Your task to perform on an android device: Show me productivity apps on the Play Store Image 0: 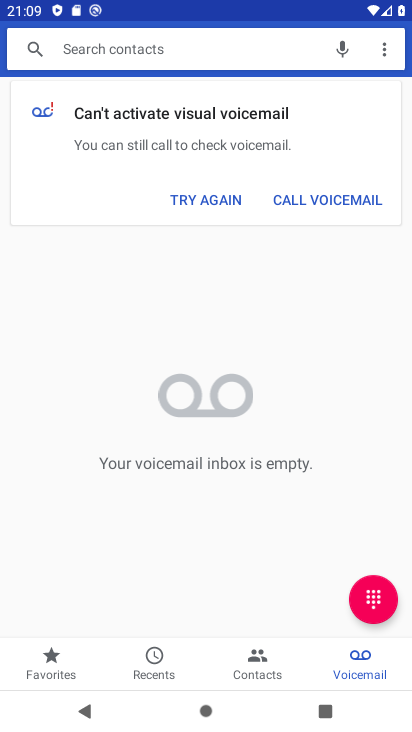
Step 0: press home button
Your task to perform on an android device: Show me productivity apps on the Play Store Image 1: 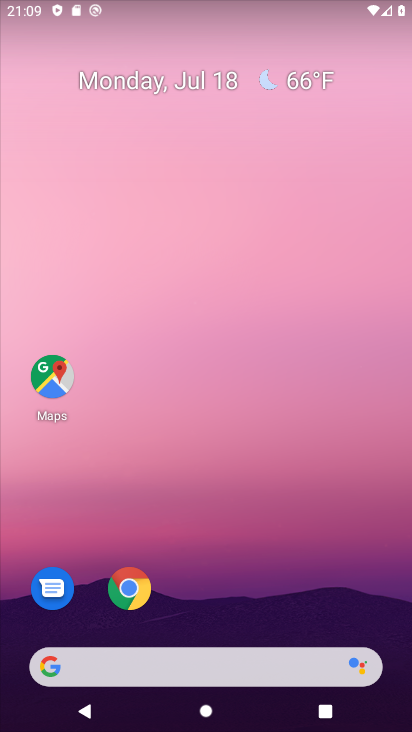
Step 1: drag from (263, 630) to (278, 1)
Your task to perform on an android device: Show me productivity apps on the Play Store Image 2: 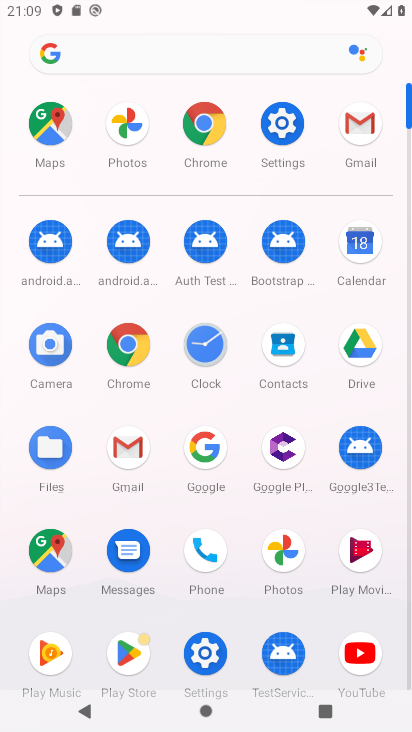
Step 2: click (122, 674)
Your task to perform on an android device: Show me productivity apps on the Play Store Image 3: 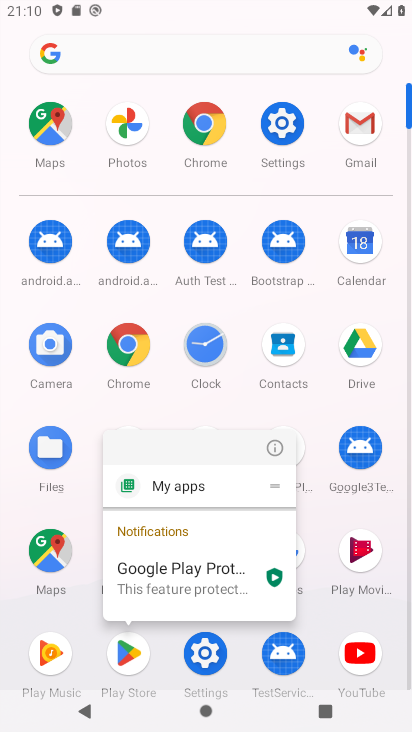
Step 3: click (132, 674)
Your task to perform on an android device: Show me productivity apps on the Play Store Image 4: 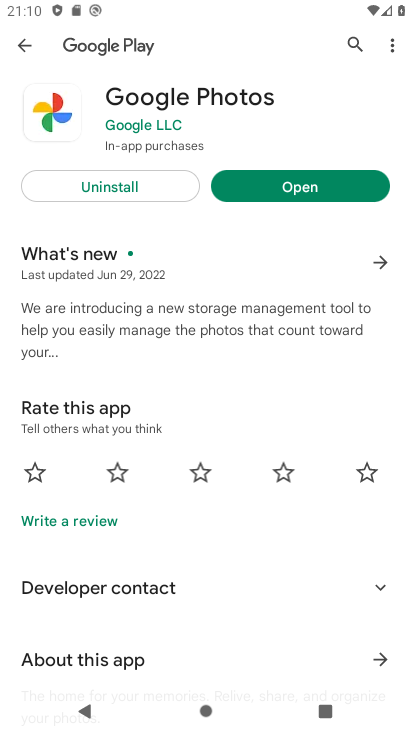
Step 4: click (354, 51)
Your task to perform on an android device: Show me productivity apps on the Play Store Image 5: 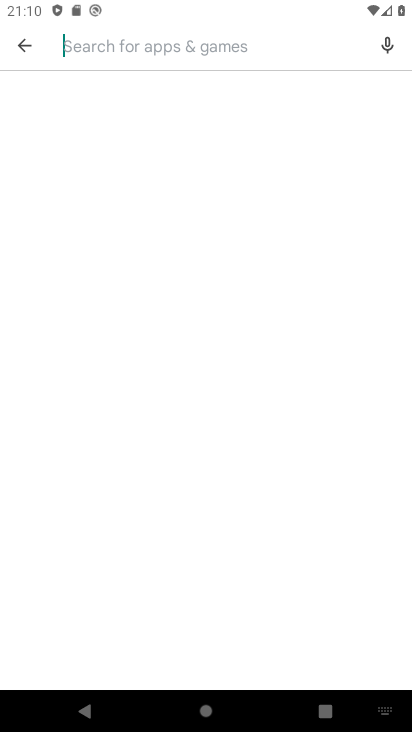
Step 5: type "productivity apps"
Your task to perform on an android device: Show me productivity apps on the Play Store Image 6: 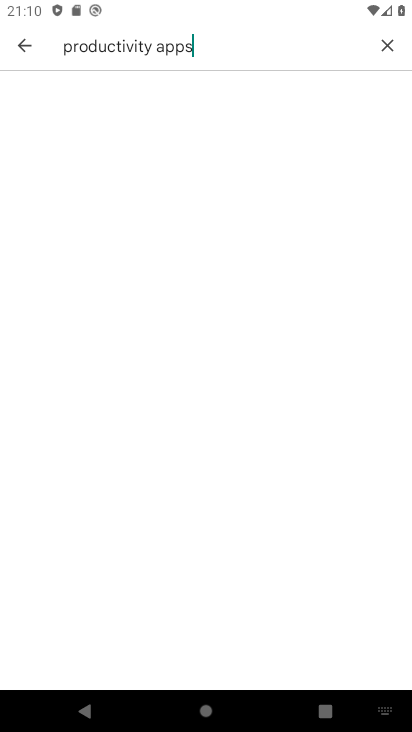
Step 6: type ""
Your task to perform on an android device: Show me productivity apps on the Play Store Image 7: 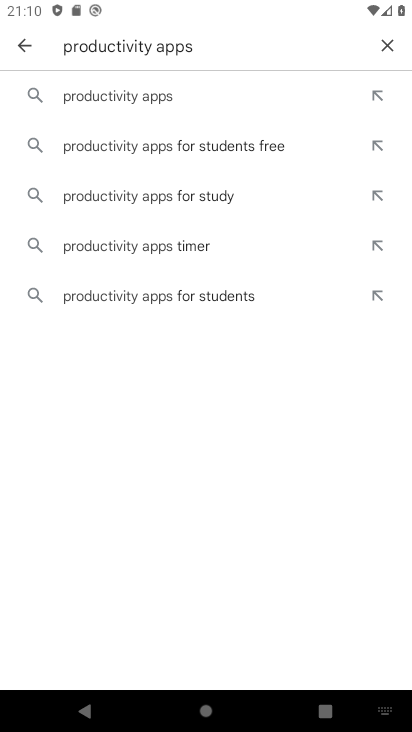
Step 7: click (213, 83)
Your task to perform on an android device: Show me productivity apps on the Play Store Image 8: 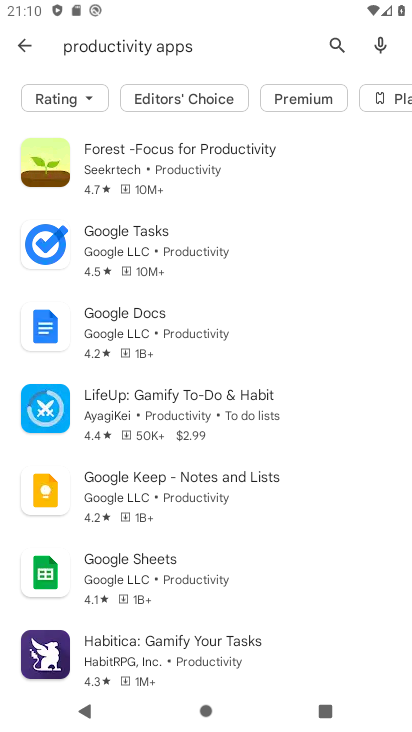
Step 8: task complete